Your task to perform on an android device: open wifi settings Image 0: 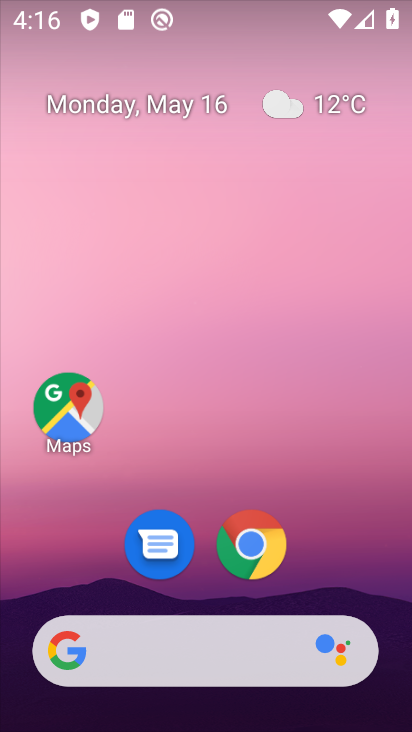
Step 0: drag from (351, 540) to (300, 75)
Your task to perform on an android device: open wifi settings Image 1: 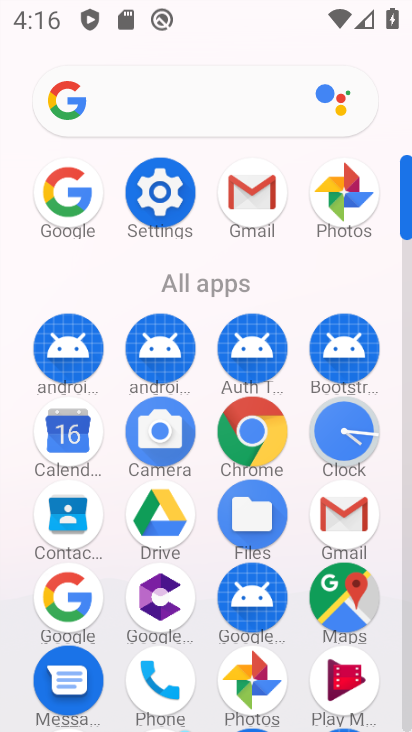
Step 1: click (159, 193)
Your task to perform on an android device: open wifi settings Image 2: 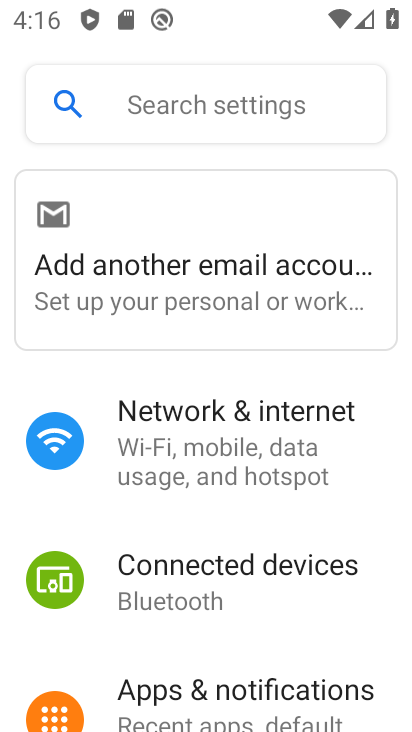
Step 2: click (186, 412)
Your task to perform on an android device: open wifi settings Image 3: 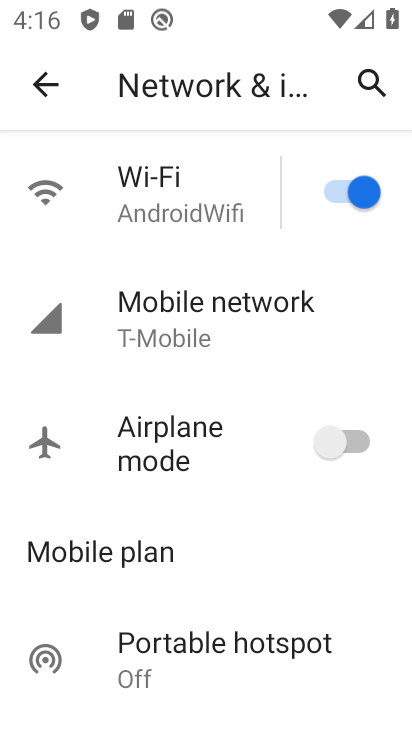
Step 3: click (177, 199)
Your task to perform on an android device: open wifi settings Image 4: 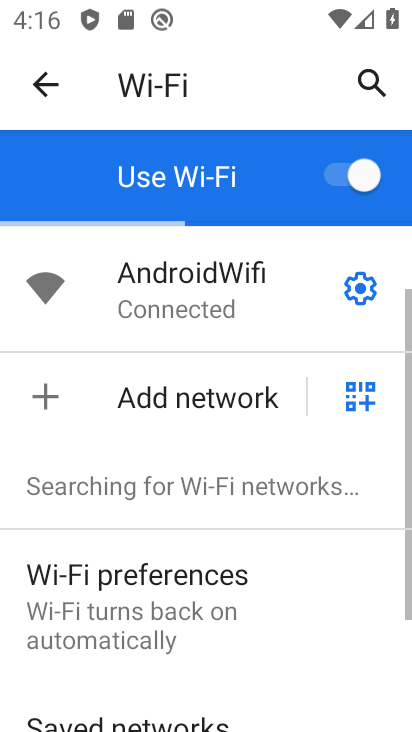
Step 4: click (360, 288)
Your task to perform on an android device: open wifi settings Image 5: 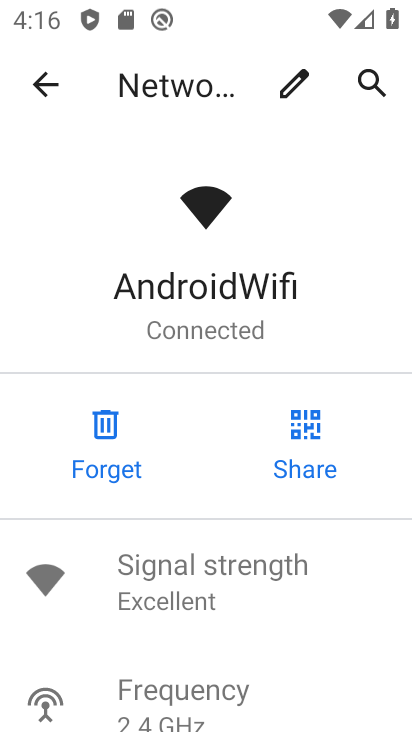
Step 5: task complete